Your task to perform on an android device: turn off airplane mode Image 0: 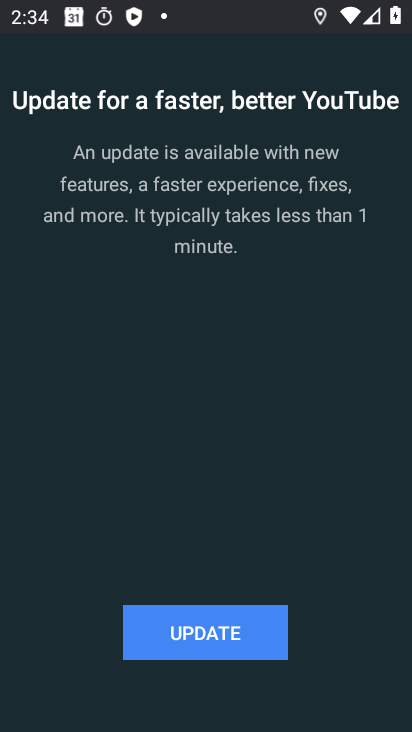
Step 0: press home button
Your task to perform on an android device: turn off airplane mode Image 1: 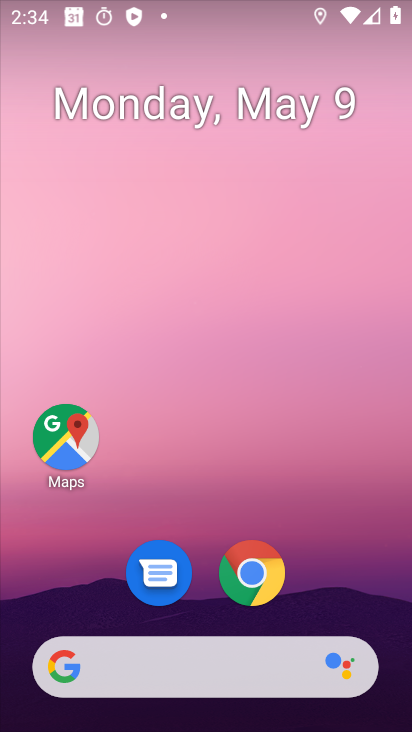
Step 1: click (203, 46)
Your task to perform on an android device: turn off airplane mode Image 2: 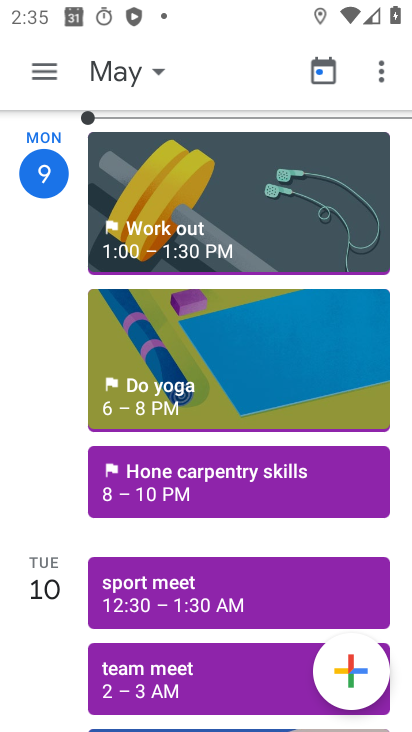
Step 2: press back button
Your task to perform on an android device: turn off airplane mode Image 3: 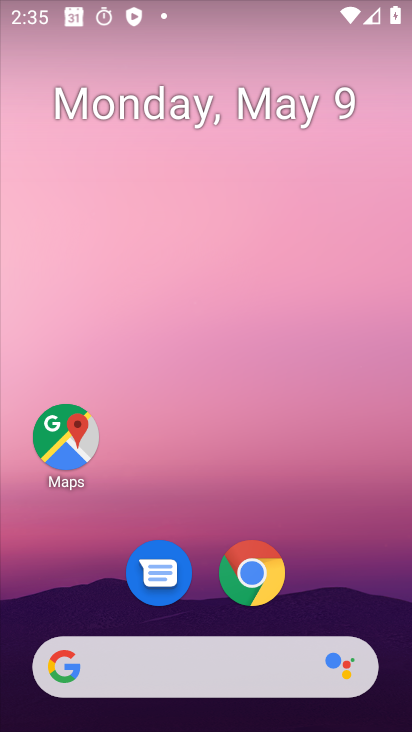
Step 3: drag from (362, 662) to (153, 44)
Your task to perform on an android device: turn off airplane mode Image 4: 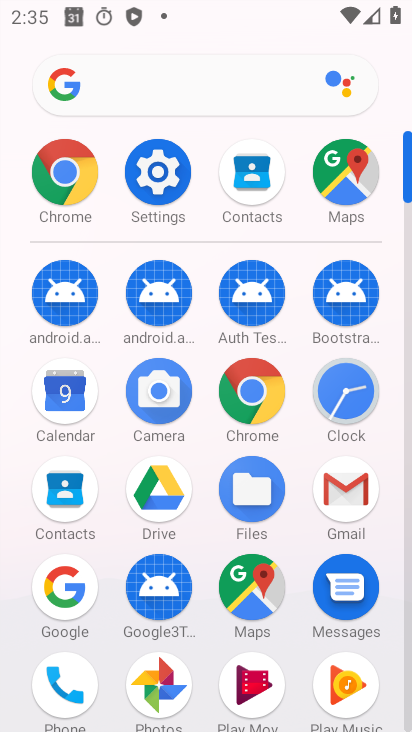
Step 4: click (164, 189)
Your task to perform on an android device: turn off airplane mode Image 5: 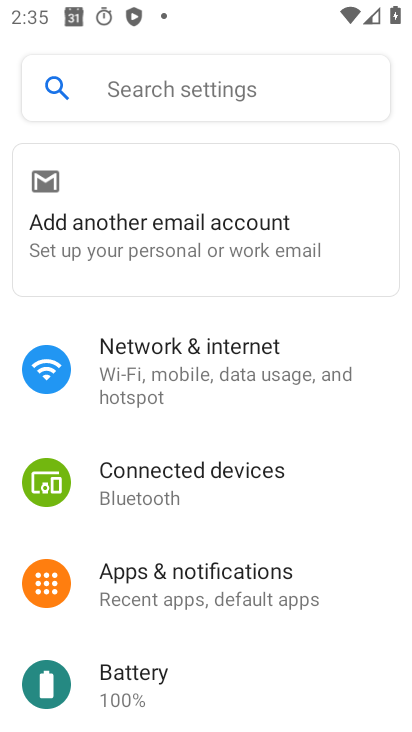
Step 5: click (156, 364)
Your task to perform on an android device: turn off airplane mode Image 6: 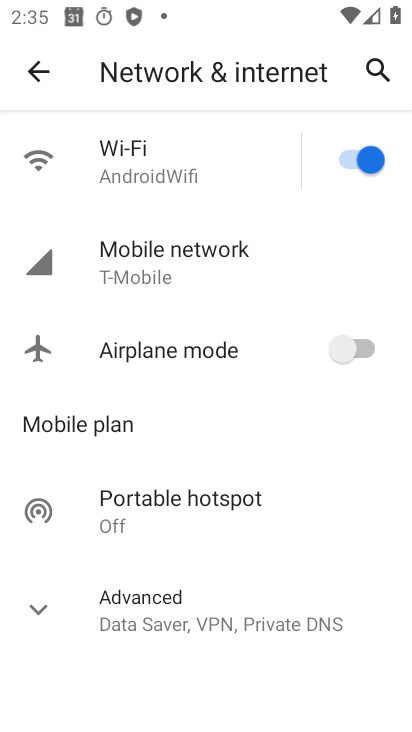
Step 6: task complete